Your task to perform on an android device: Open wifi settings Image 0: 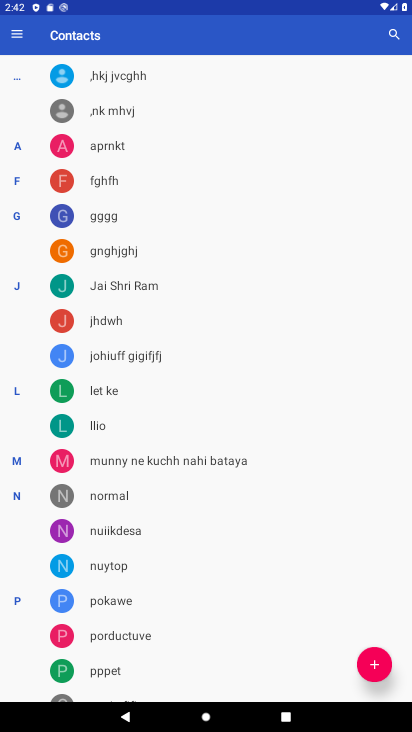
Step 0: press home button
Your task to perform on an android device: Open wifi settings Image 1: 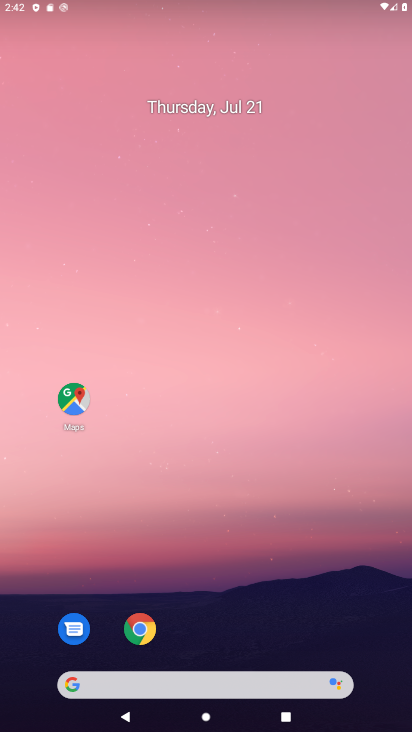
Step 1: drag from (211, 652) to (223, 133)
Your task to perform on an android device: Open wifi settings Image 2: 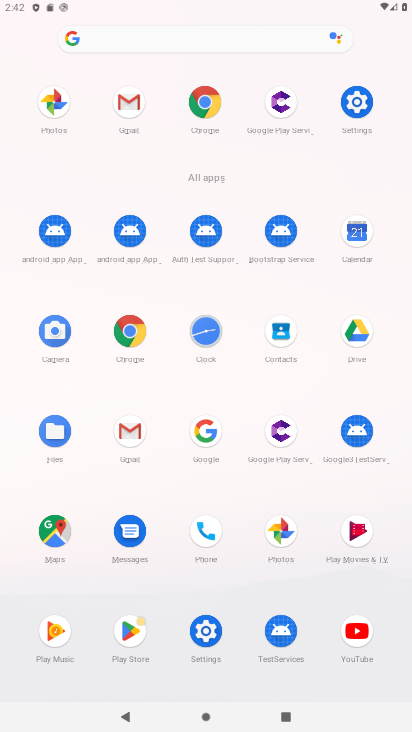
Step 2: click (356, 103)
Your task to perform on an android device: Open wifi settings Image 3: 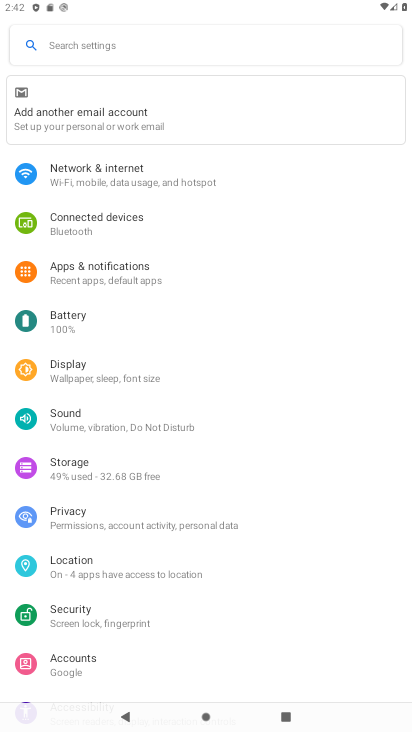
Step 3: click (121, 172)
Your task to perform on an android device: Open wifi settings Image 4: 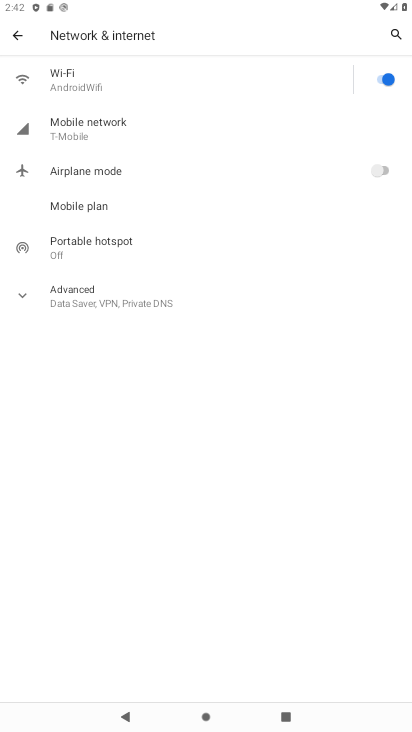
Step 4: click (109, 74)
Your task to perform on an android device: Open wifi settings Image 5: 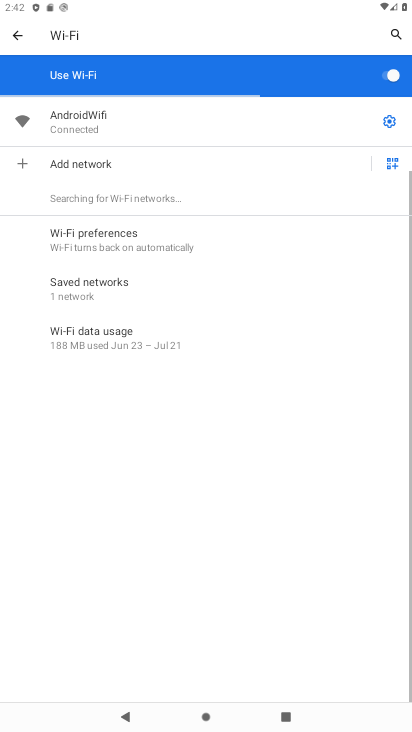
Step 5: click (135, 140)
Your task to perform on an android device: Open wifi settings Image 6: 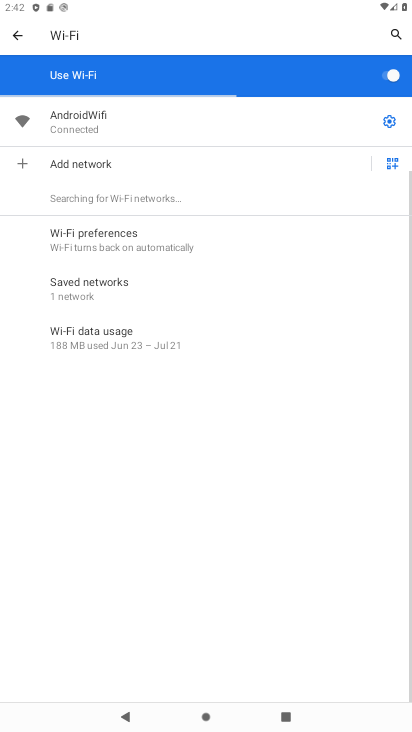
Step 6: click (155, 122)
Your task to perform on an android device: Open wifi settings Image 7: 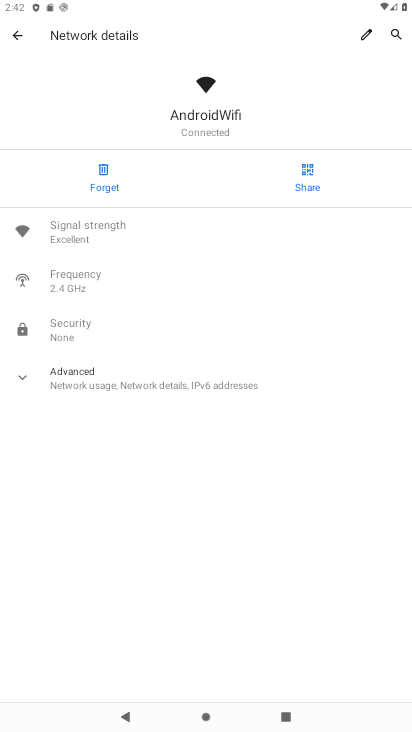
Step 7: task complete